Your task to perform on an android device: Open Amazon Image 0: 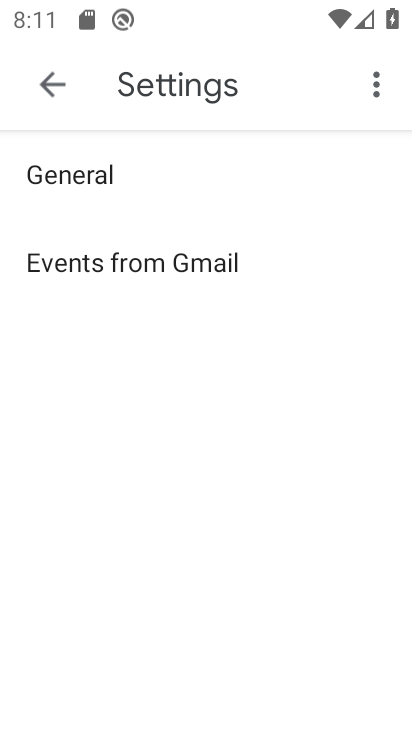
Step 0: press home button
Your task to perform on an android device: Open Amazon Image 1: 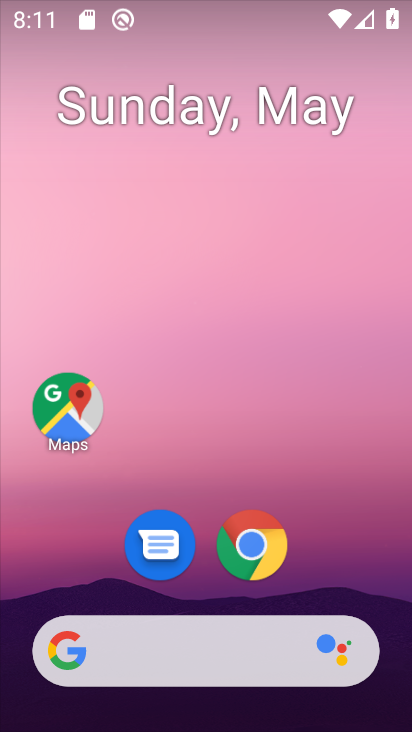
Step 1: click (262, 545)
Your task to perform on an android device: Open Amazon Image 2: 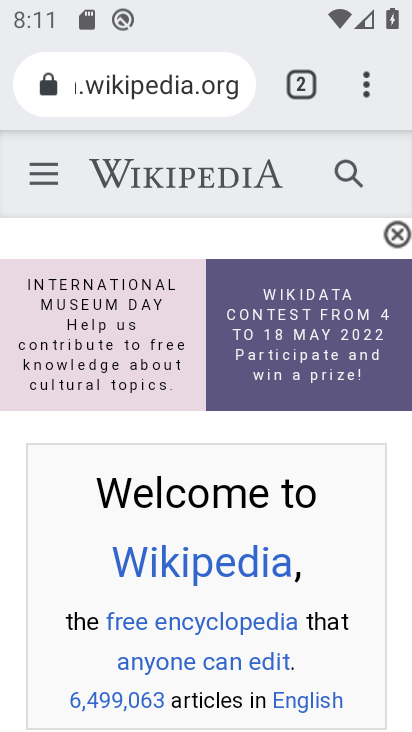
Step 2: drag from (392, 81) to (320, 172)
Your task to perform on an android device: Open Amazon Image 3: 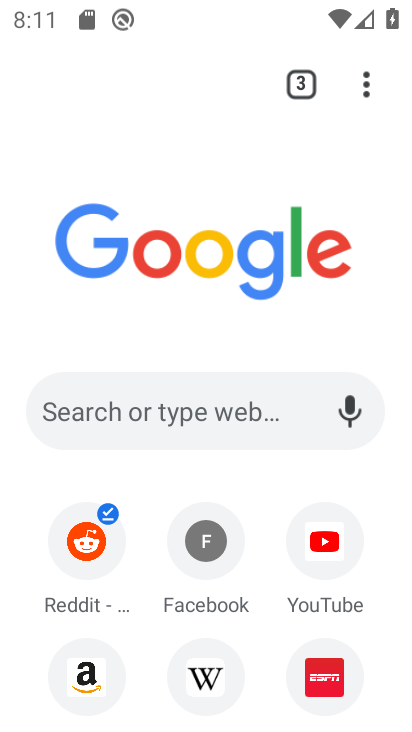
Step 3: drag from (207, 668) to (253, 457)
Your task to perform on an android device: Open Amazon Image 4: 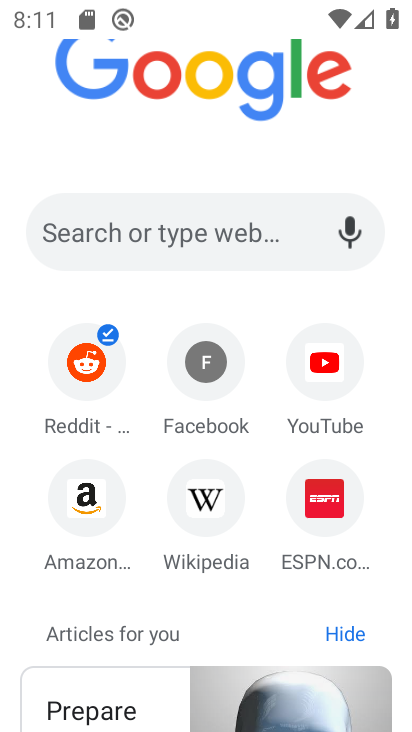
Step 4: click (95, 486)
Your task to perform on an android device: Open Amazon Image 5: 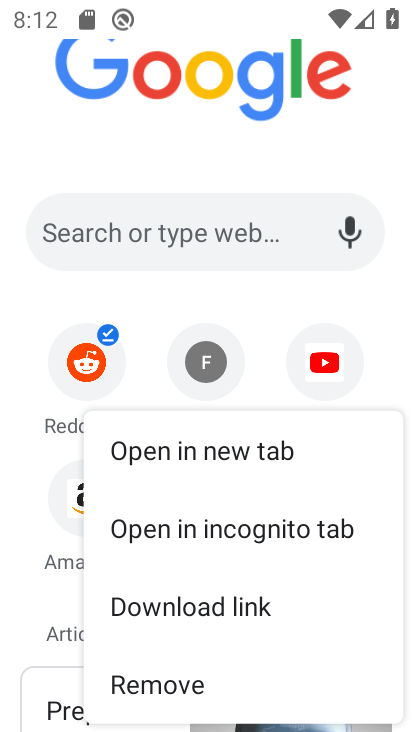
Step 5: click (67, 494)
Your task to perform on an android device: Open Amazon Image 6: 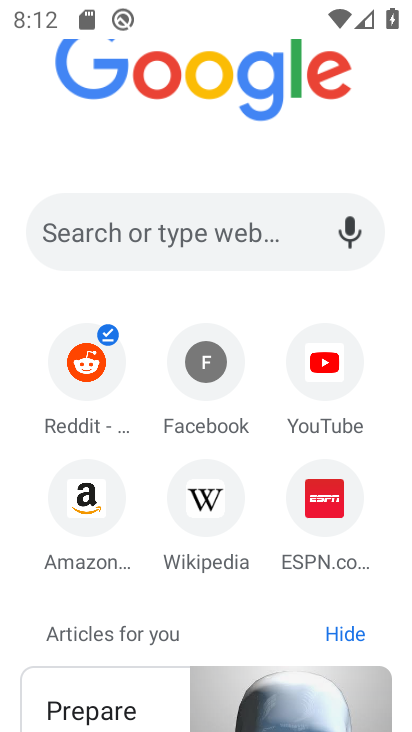
Step 6: click (80, 509)
Your task to perform on an android device: Open Amazon Image 7: 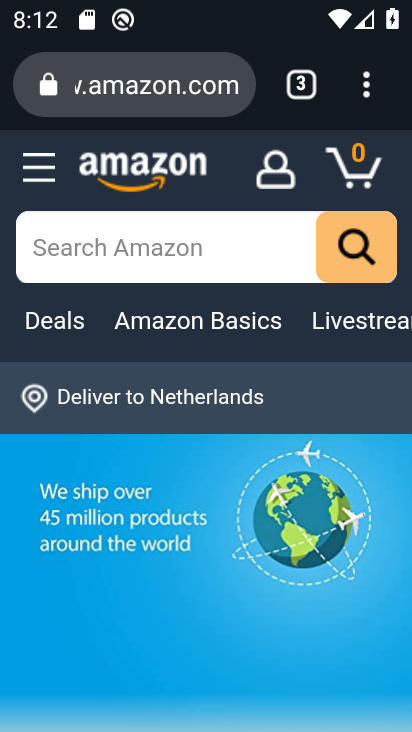
Step 7: task complete